Your task to perform on an android device: Go to internet settings Image 0: 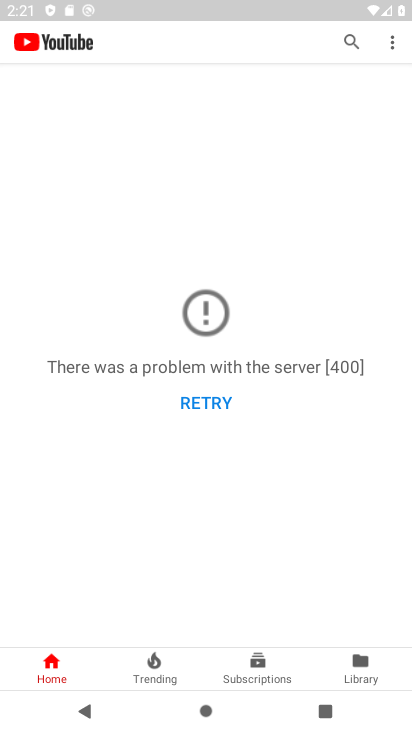
Step 0: press home button
Your task to perform on an android device: Go to internet settings Image 1: 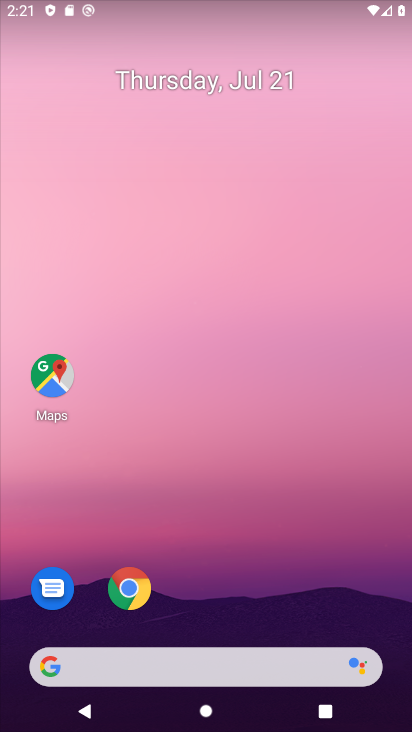
Step 1: drag from (205, 589) to (192, 80)
Your task to perform on an android device: Go to internet settings Image 2: 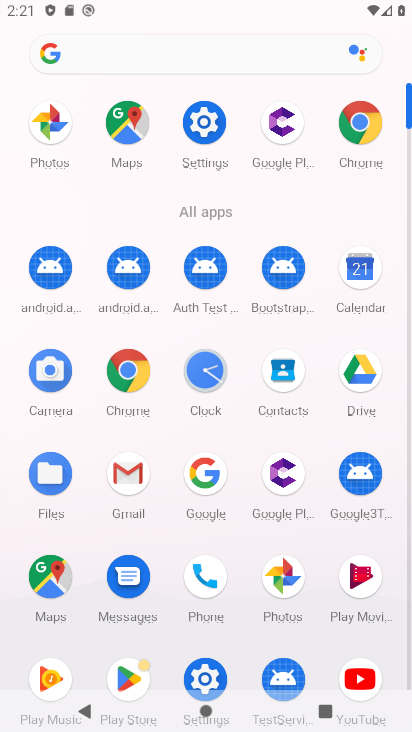
Step 2: click (206, 124)
Your task to perform on an android device: Go to internet settings Image 3: 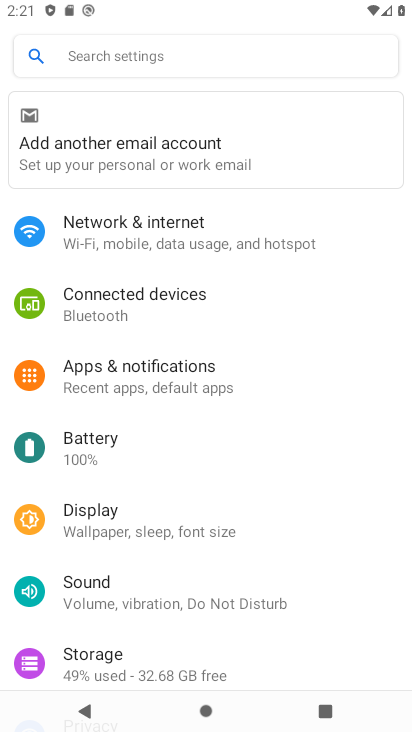
Step 3: click (150, 217)
Your task to perform on an android device: Go to internet settings Image 4: 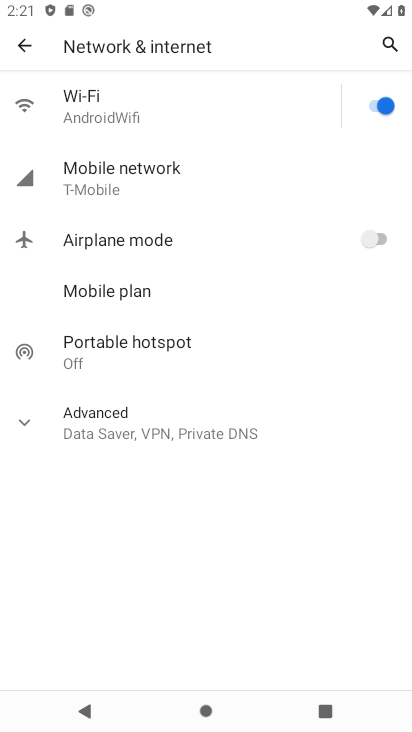
Step 4: click (122, 170)
Your task to perform on an android device: Go to internet settings Image 5: 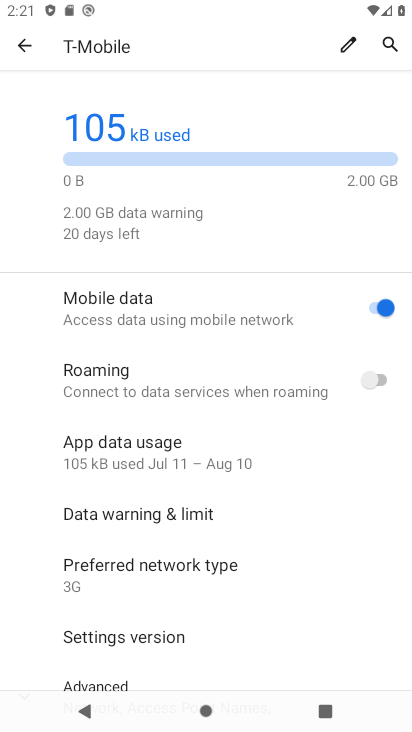
Step 5: task complete